Your task to perform on an android device: toggle pop-ups in chrome Image 0: 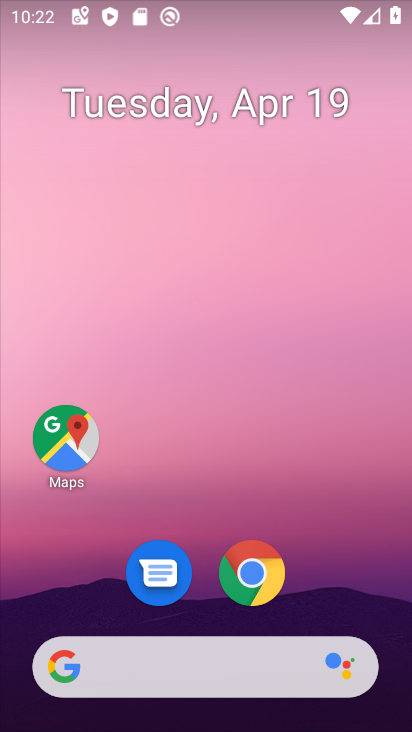
Step 0: click (258, 573)
Your task to perform on an android device: toggle pop-ups in chrome Image 1: 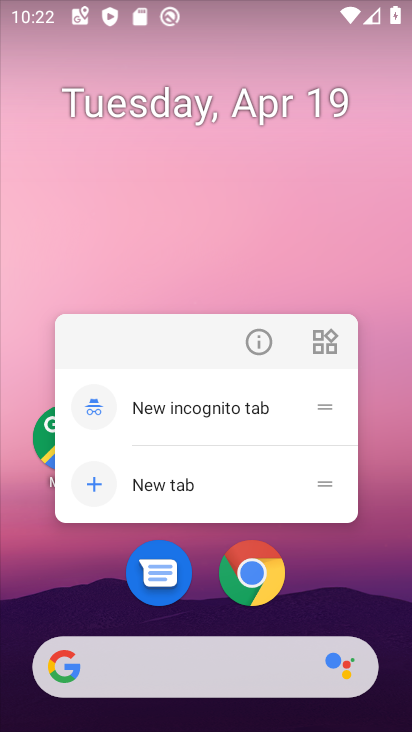
Step 1: click (258, 573)
Your task to perform on an android device: toggle pop-ups in chrome Image 2: 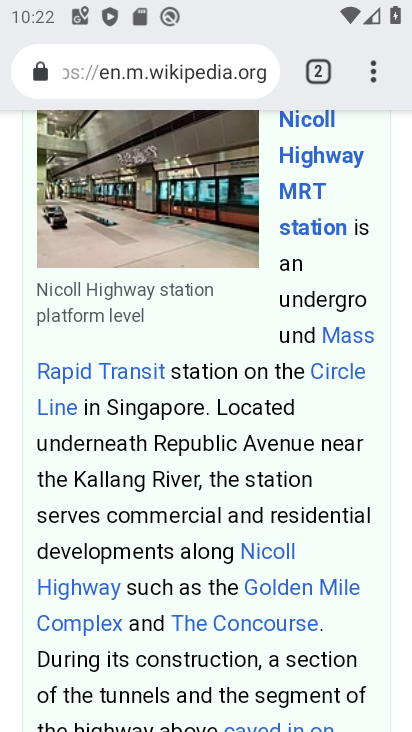
Step 2: click (373, 71)
Your task to perform on an android device: toggle pop-ups in chrome Image 3: 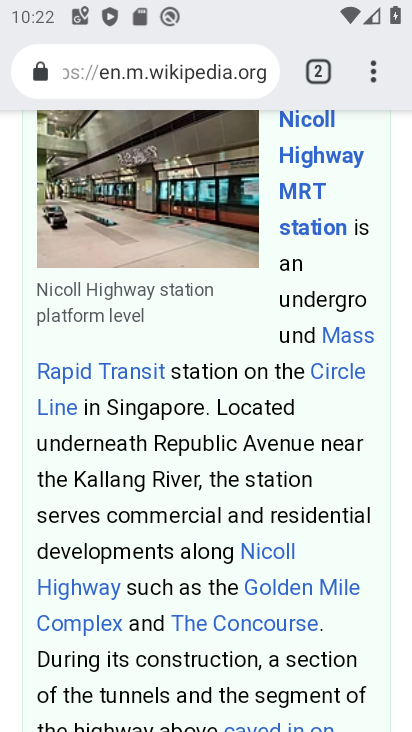
Step 3: click (371, 73)
Your task to perform on an android device: toggle pop-ups in chrome Image 4: 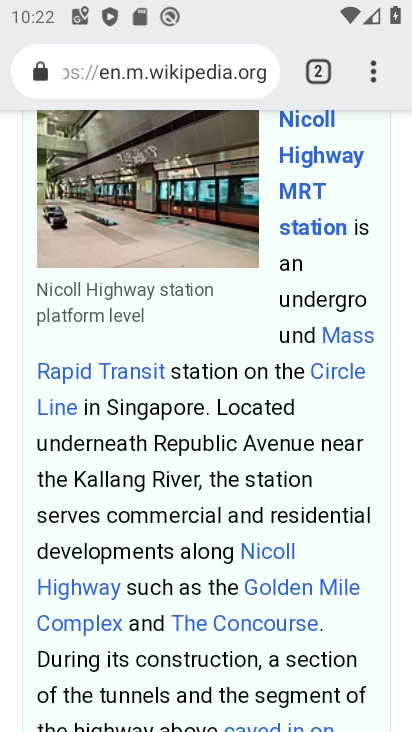
Step 4: drag from (373, 78) to (140, 568)
Your task to perform on an android device: toggle pop-ups in chrome Image 5: 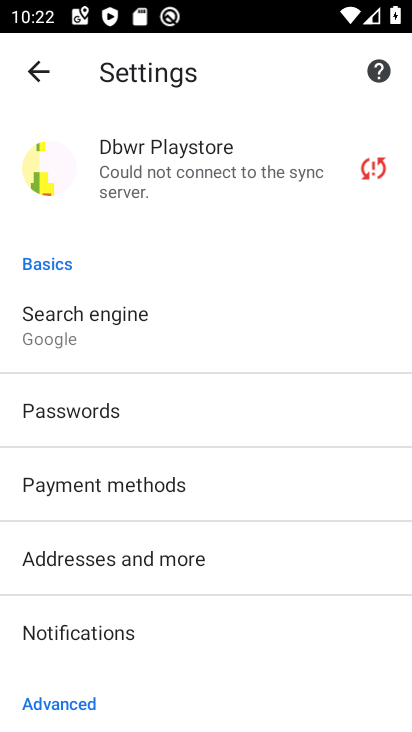
Step 5: drag from (224, 670) to (226, 274)
Your task to perform on an android device: toggle pop-ups in chrome Image 6: 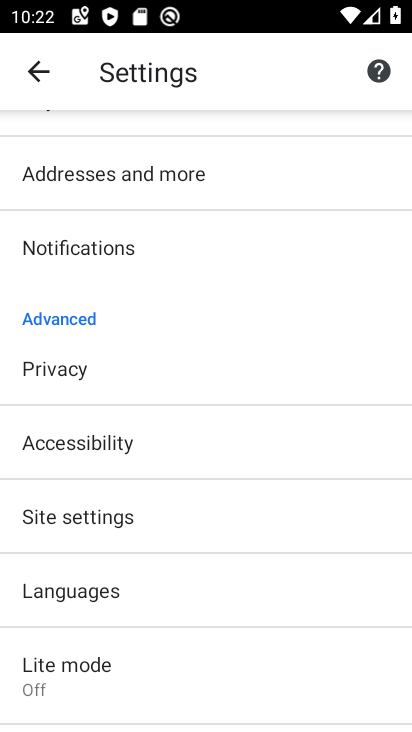
Step 6: click (88, 519)
Your task to perform on an android device: toggle pop-ups in chrome Image 7: 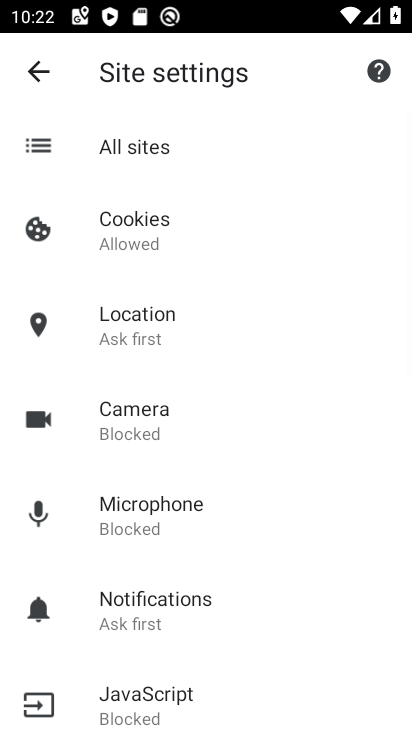
Step 7: drag from (198, 667) to (197, 309)
Your task to perform on an android device: toggle pop-ups in chrome Image 8: 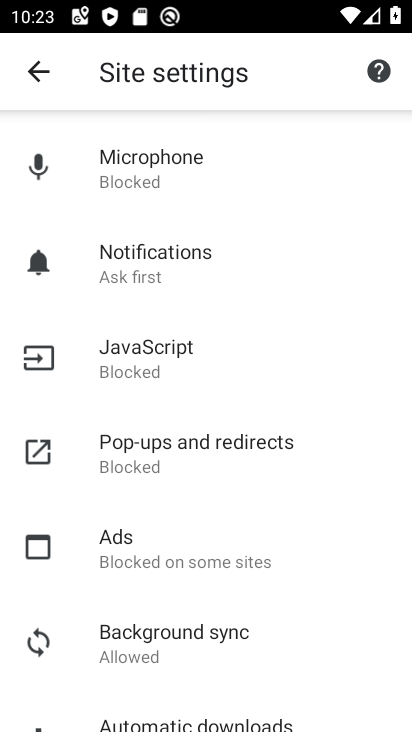
Step 8: click (182, 452)
Your task to perform on an android device: toggle pop-ups in chrome Image 9: 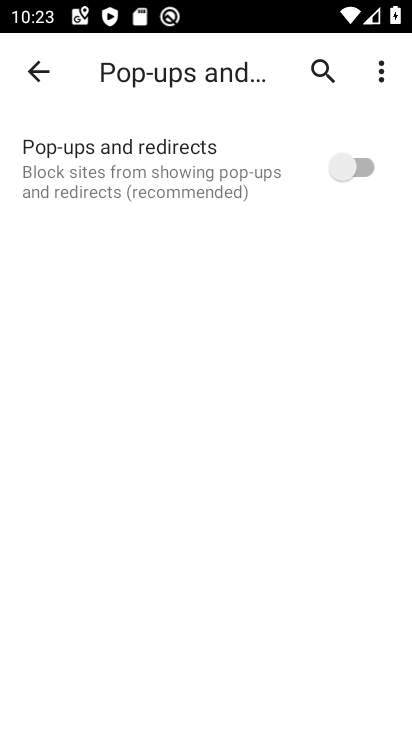
Step 9: click (355, 165)
Your task to perform on an android device: toggle pop-ups in chrome Image 10: 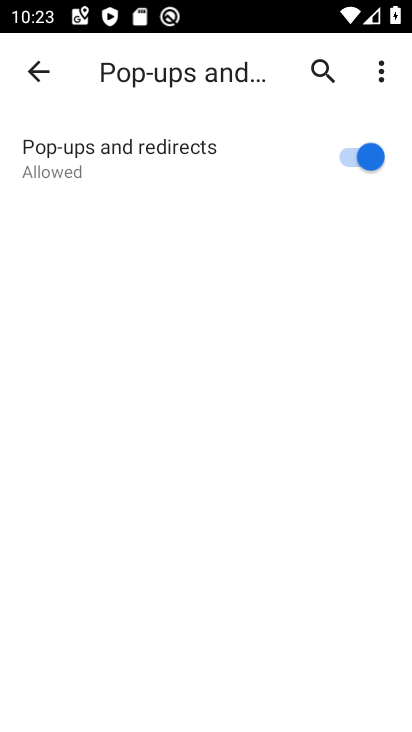
Step 10: task complete